Your task to perform on an android device: open a new tab in the chrome app Image 0: 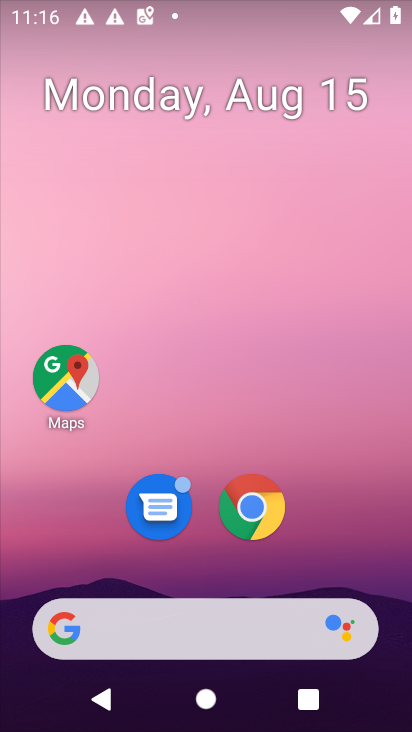
Step 0: click (258, 510)
Your task to perform on an android device: open a new tab in the chrome app Image 1: 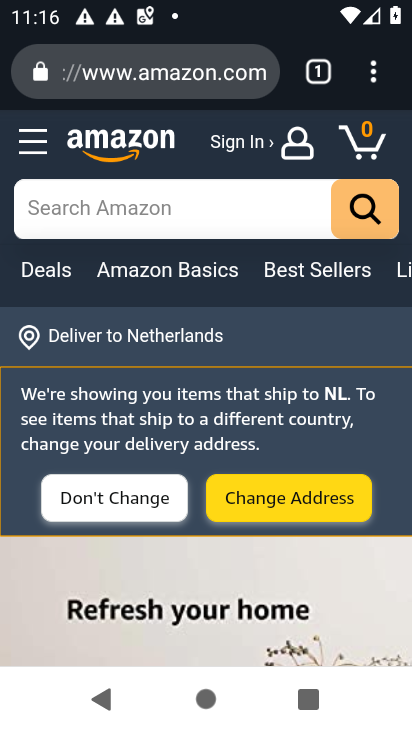
Step 1: click (376, 77)
Your task to perform on an android device: open a new tab in the chrome app Image 2: 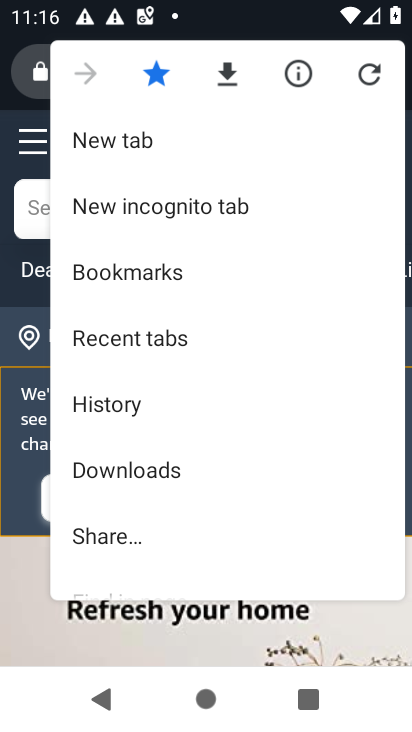
Step 2: click (134, 136)
Your task to perform on an android device: open a new tab in the chrome app Image 3: 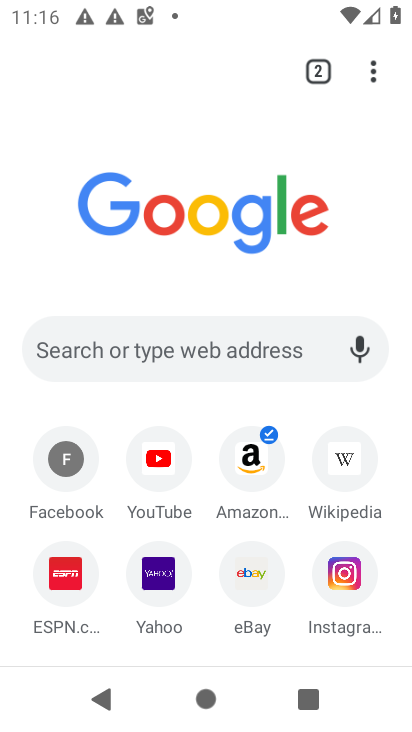
Step 3: task complete